Your task to perform on an android device: turn off notifications in google photos Image 0: 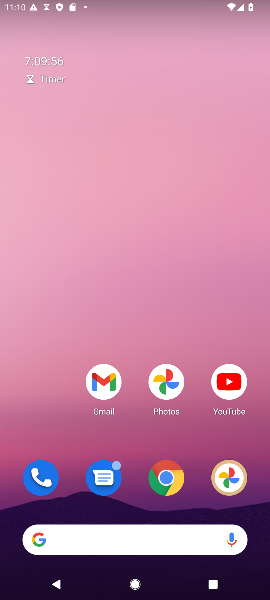
Step 0: click (158, 392)
Your task to perform on an android device: turn off notifications in google photos Image 1: 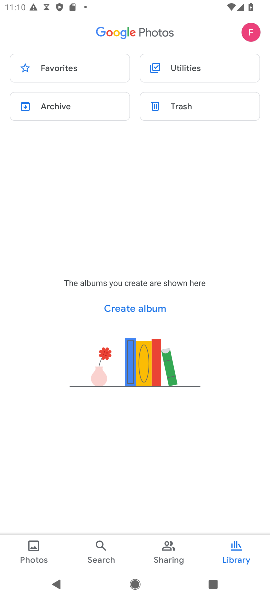
Step 1: click (249, 30)
Your task to perform on an android device: turn off notifications in google photos Image 2: 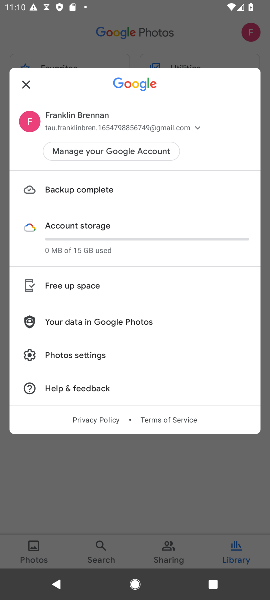
Step 2: click (112, 356)
Your task to perform on an android device: turn off notifications in google photos Image 3: 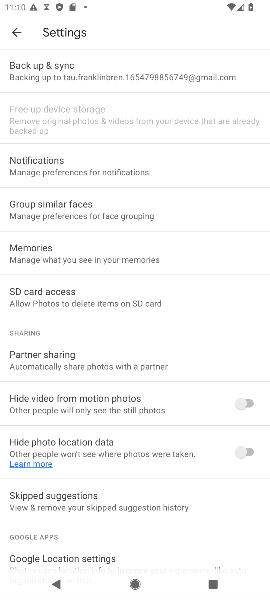
Step 3: click (95, 175)
Your task to perform on an android device: turn off notifications in google photos Image 4: 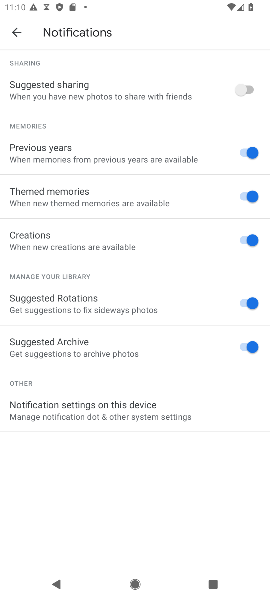
Step 4: click (176, 419)
Your task to perform on an android device: turn off notifications in google photos Image 5: 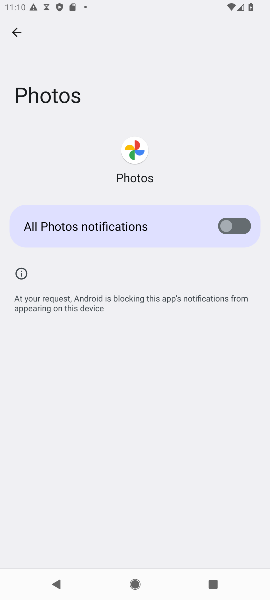
Step 5: task complete